Your task to perform on an android device: move an email to a new category in the gmail app Image 0: 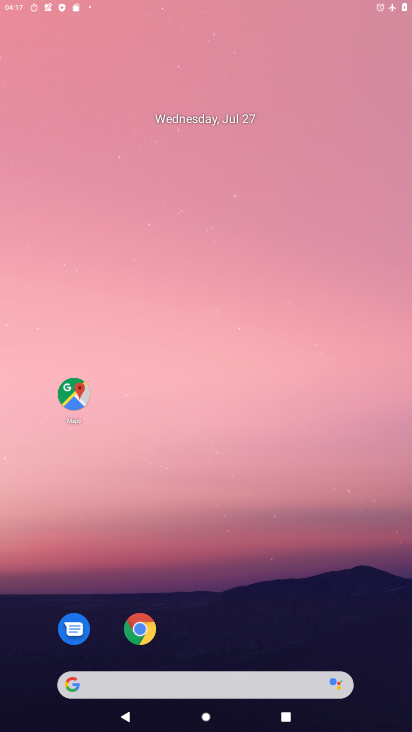
Step 0: click (267, 116)
Your task to perform on an android device: move an email to a new category in the gmail app Image 1: 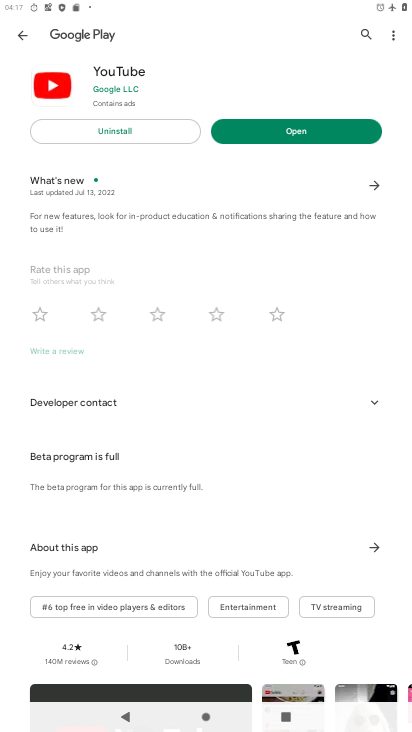
Step 1: press home button
Your task to perform on an android device: move an email to a new category in the gmail app Image 2: 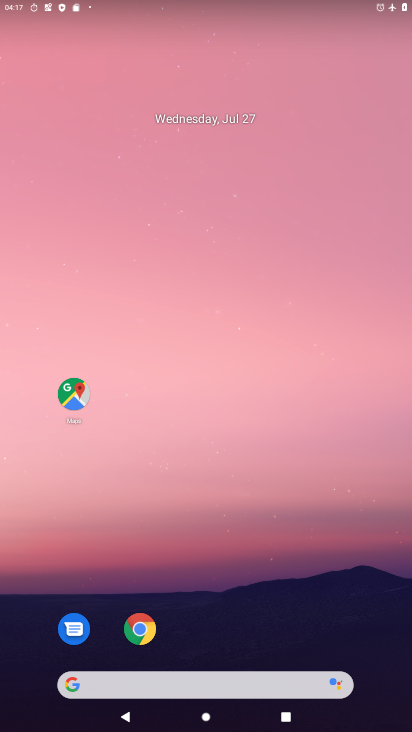
Step 2: drag from (357, 590) to (277, 20)
Your task to perform on an android device: move an email to a new category in the gmail app Image 3: 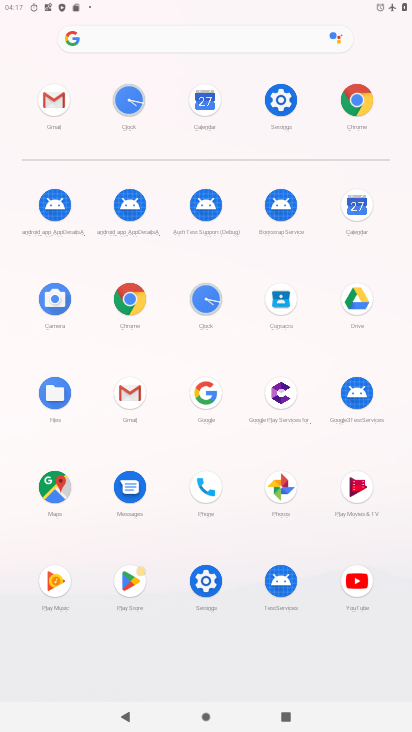
Step 3: click (58, 107)
Your task to perform on an android device: move an email to a new category in the gmail app Image 4: 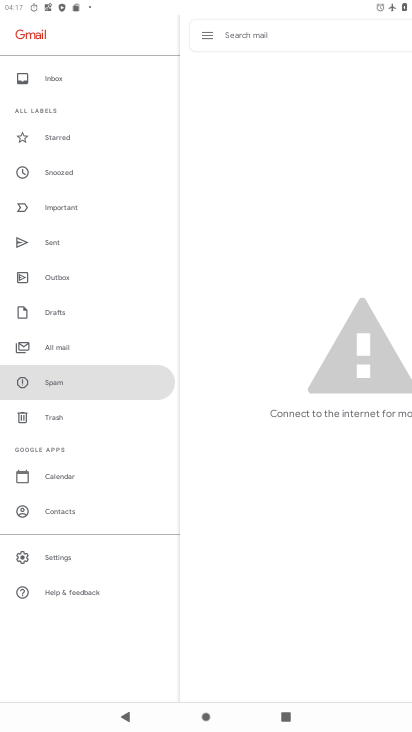
Step 4: click (51, 88)
Your task to perform on an android device: move an email to a new category in the gmail app Image 5: 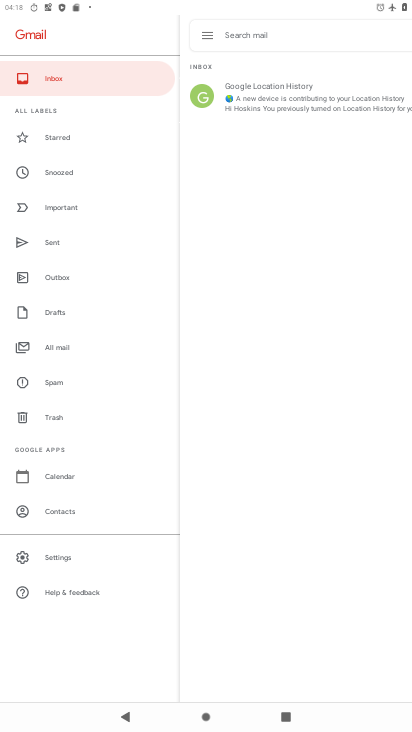
Step 5: click (59, 340)
Your task to perform on an android device: move an email to a new category in the gmail app Image 6: 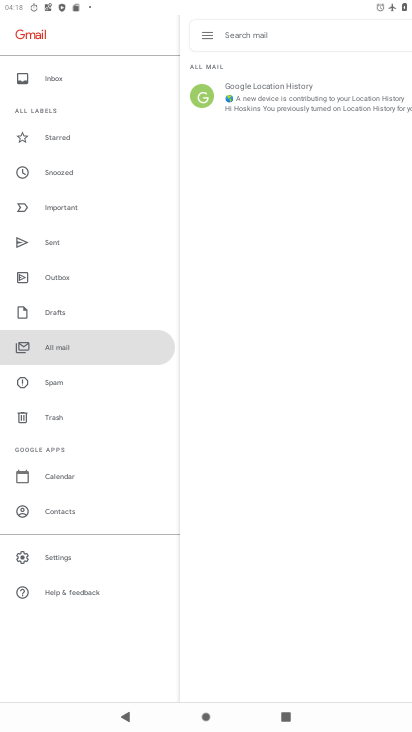
Step 6: click (315, 90)
Your task to perform on an android device: move an email to a new category in the gmail app Image 7: 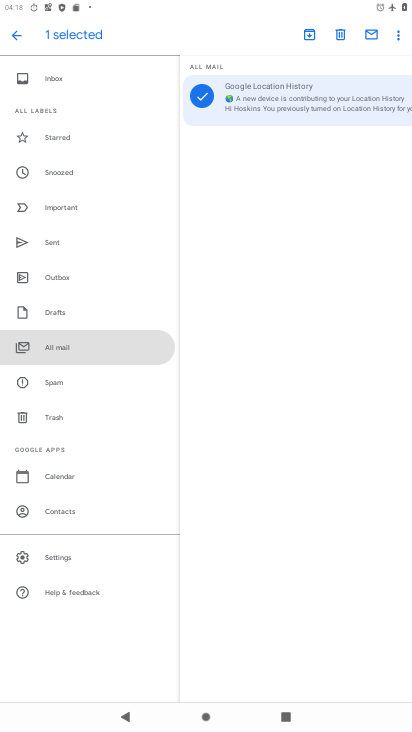
Step 7: click (389, 32)
Your task to perform on an android device: move an email to a new category in the gmail app Image 8: 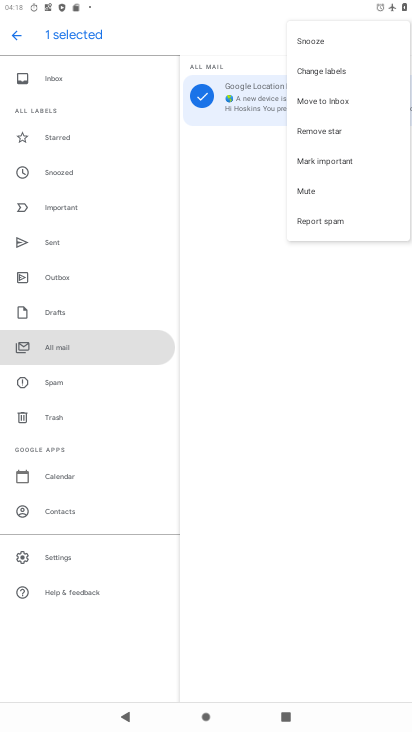
Step 8: click (323, 101)
Your task to perform on an android device: move an email to a new category in the gmail app Image 9: 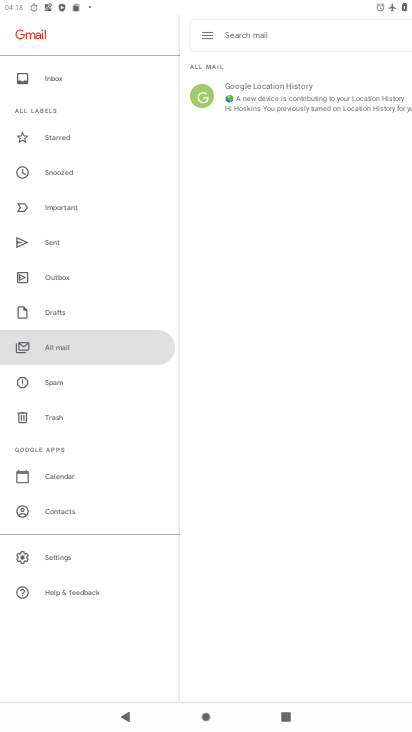
Step 9: task complete